Your task to perform on an android device: stop showing notifications on the lock screen Image 0: 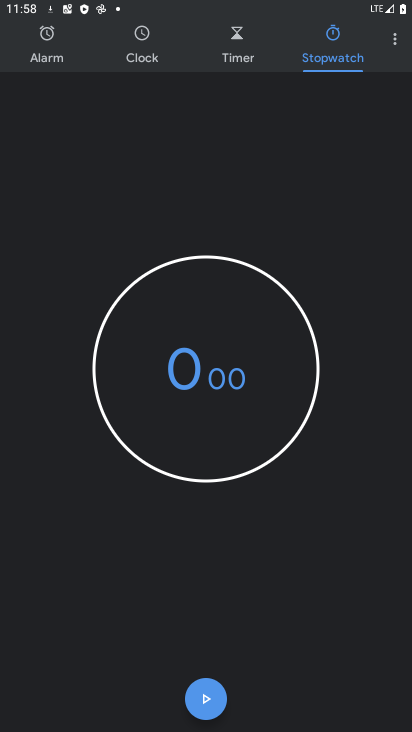
Step 0: press home button
Your task to perform on an android device: stop showing notifications on the lock screen Image 1: 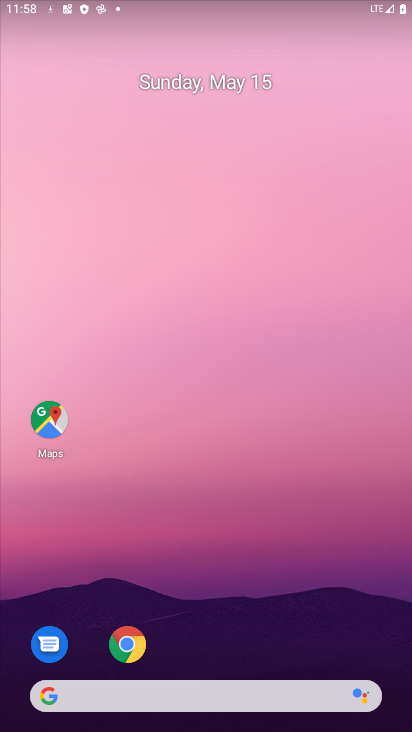
Step 1: drag from (297, 713) to (411, 249)
Your task to perform on an android device: stop showing notifications on the lock screen Image 2: 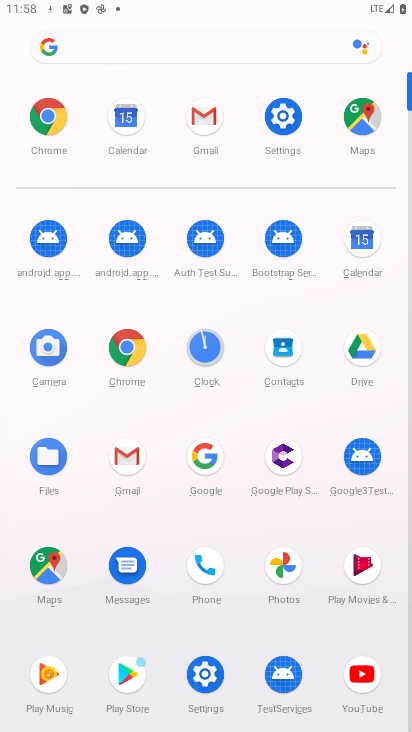
Step 2: click (304, 116)
Your task to perform on an android device: stop showing notifications on the lock screen Image 3: 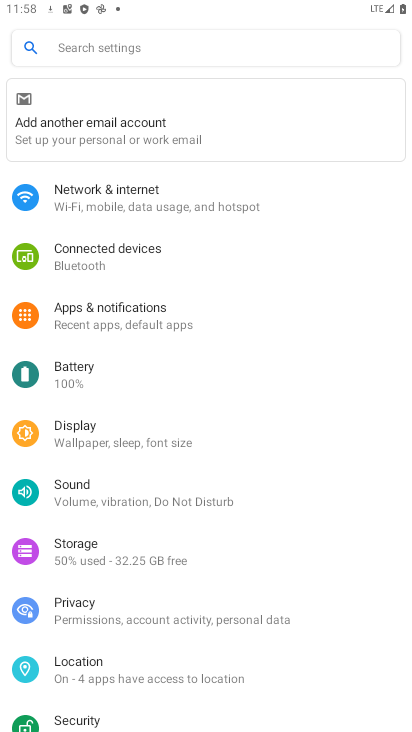
Step 3: click (142, 52)
Your task to perform on an android device: stop showing notifications on the lock screen Image 4: 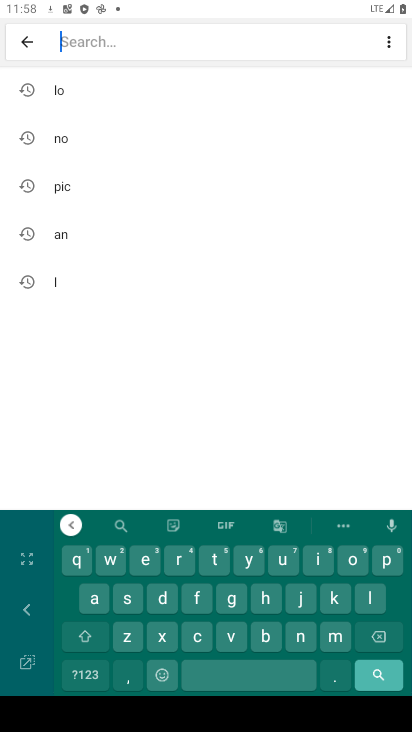
Step 4: click (295, 645)
Your task to perform on an android device: stop showing notifications on the lock screen Image 5: 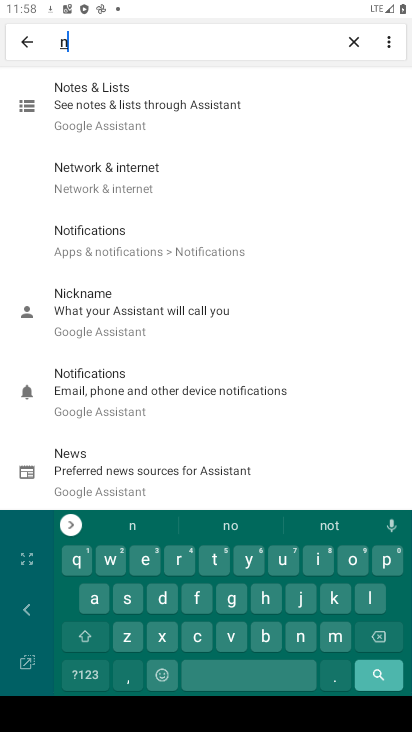
Step 5: click (117, 228)
Your task to perform on an android device: stop showing notifications on the lock screen Image 6: 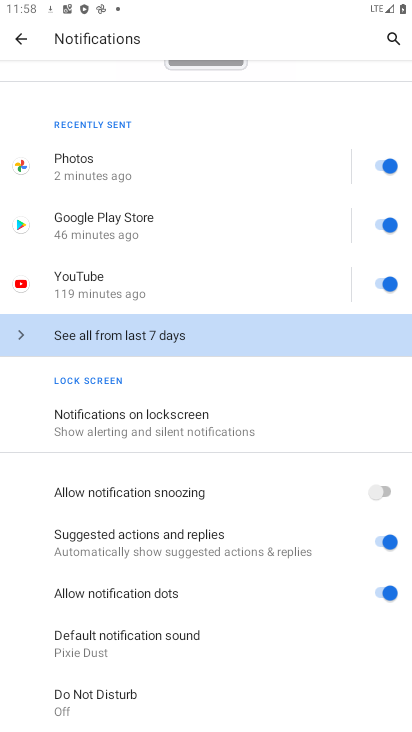
Step 6: click (107, 403)
Your task to perform on an android device: stop showing notifications on the lock screen Image 7: 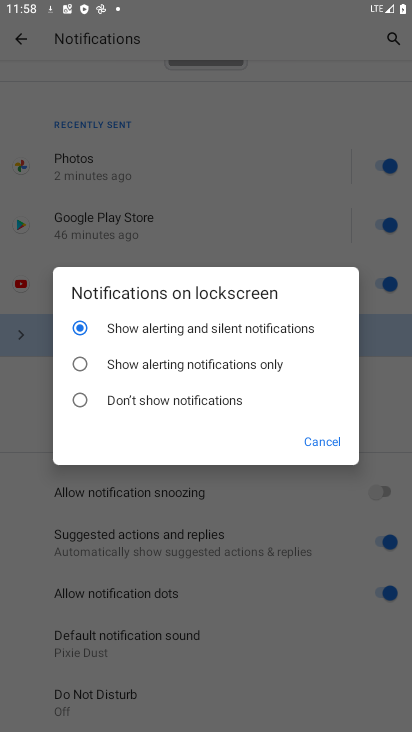
Step 7: click (133, 409)
Your task to perform on an android device: stop showing notifications on the lock screen Image 8: 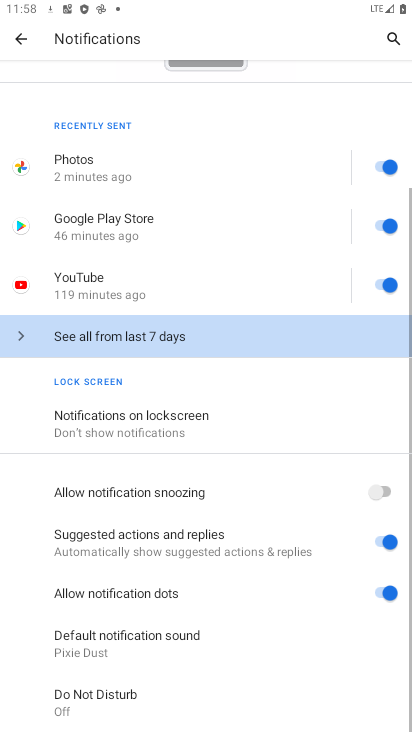
Step 8: task complete